Your task to perform on an android device: turn off airplane mode Image 0: 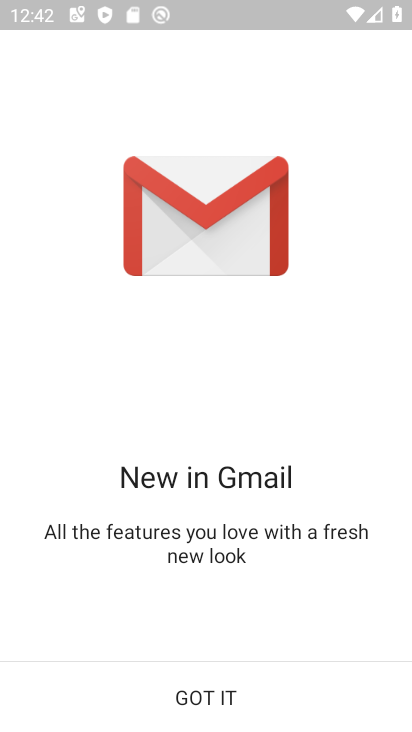
Step 0: press home button
Your task to perform on an android device: turn off airplane mode Image 1: 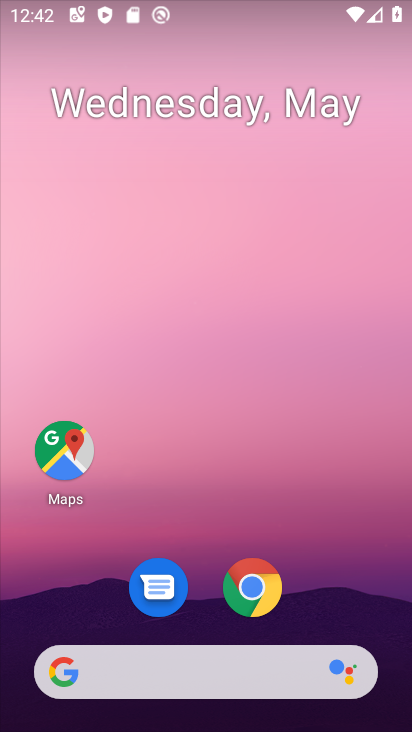
Step 1: drag from (384, 615) to (394, 114)
Your task to perform on an android device: turn off airplane mode Image 2: 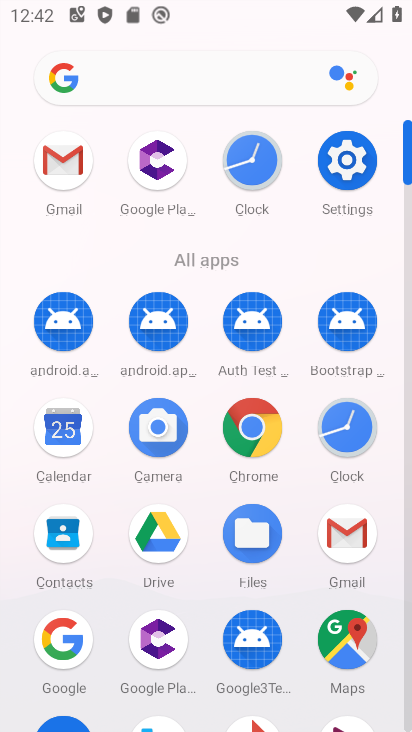
Step 2: click (349, 174)
Your task to perform on an android device: turn off airplane mode Image 3: 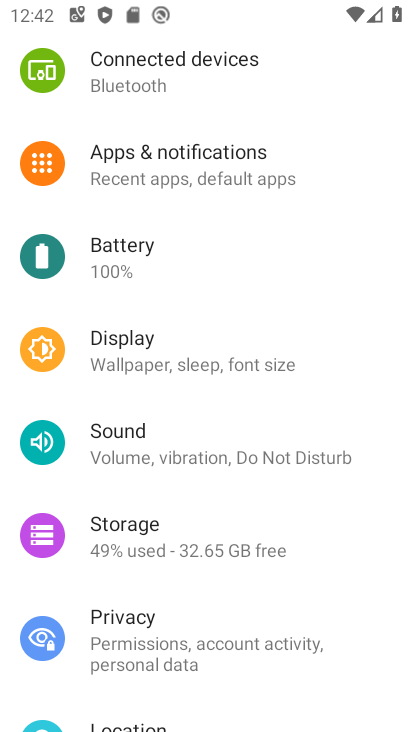
Step 3: drag from (370, 326) to (361, 424)
Your task to perform on an android device: turn off airplane mode Image 4: 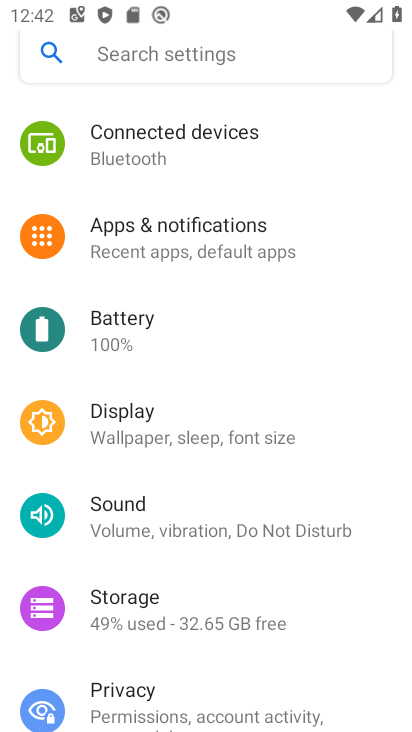
Step 4: drag from (363, 312) to (355, 405)
Your task to perform on an android device: turn off airplane mode Image 5: 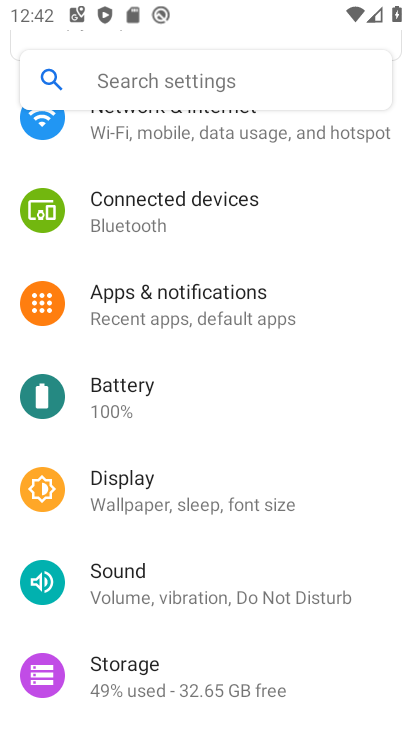
Step 5: drag from (362, 267) to (358, 397)
Your task to perform on an android device: turn off airplane mode Image 6: 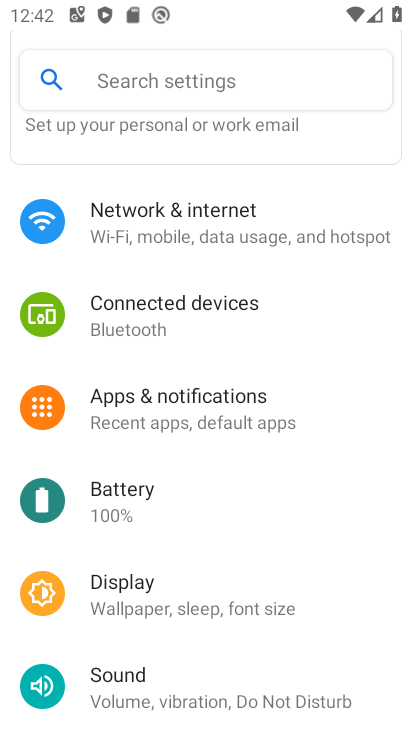
Step 6: drag from (352, 307) to (349, 436)
Your task to perform on an android device: turn off airplane mode Image 7: 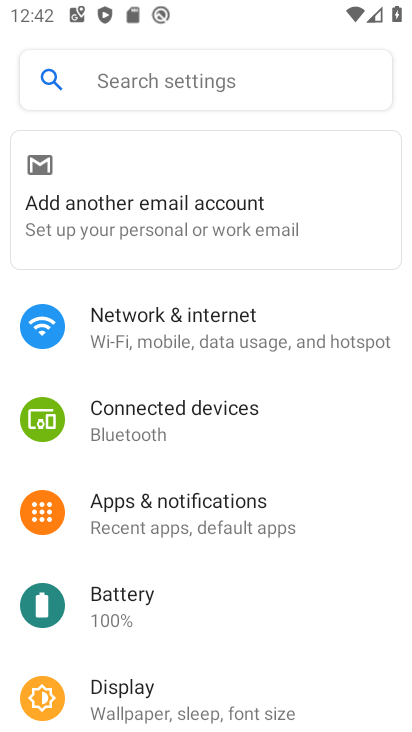
Step 7: drag from (364, 234) to (365, 392)
Your task to perform on an android device: turn off airplane mode Image 8: 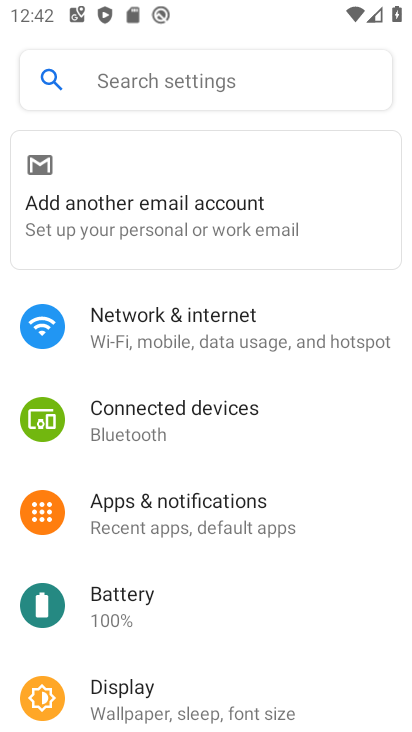
Step 8: drag from (364, 526) to (355, 384)
Your task to perform on an android device: turn off airplane mode Image 9: 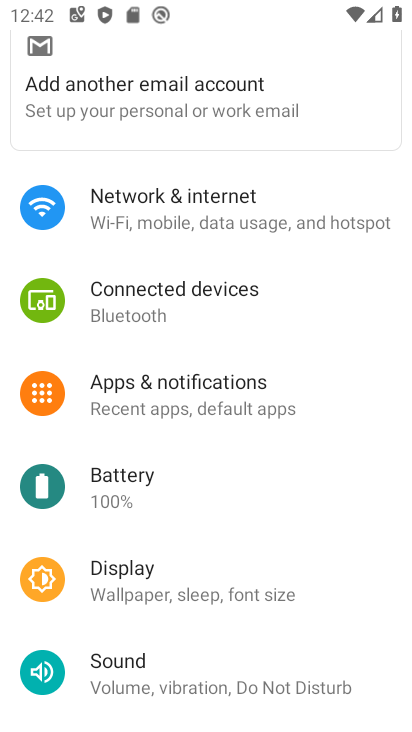
Step 9: drag from (343, 532) to (343, 433)
Your task to perform on an android device: turn off airplane mode Image 10: 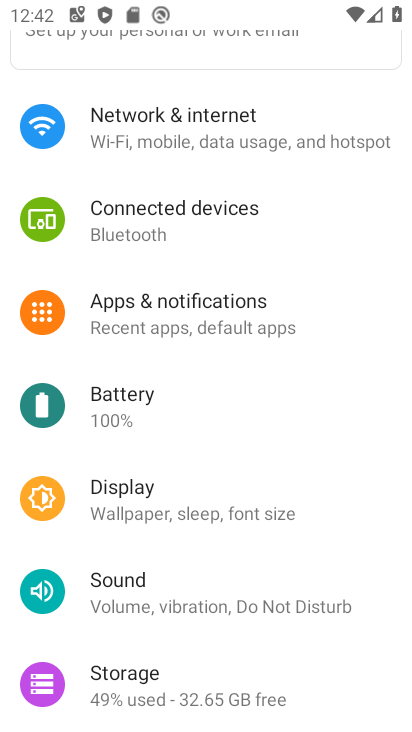
Step 10: drag from (362, 585) to (376, 448)
Your task to perform on an android device: turn off airplane mode Image 11: 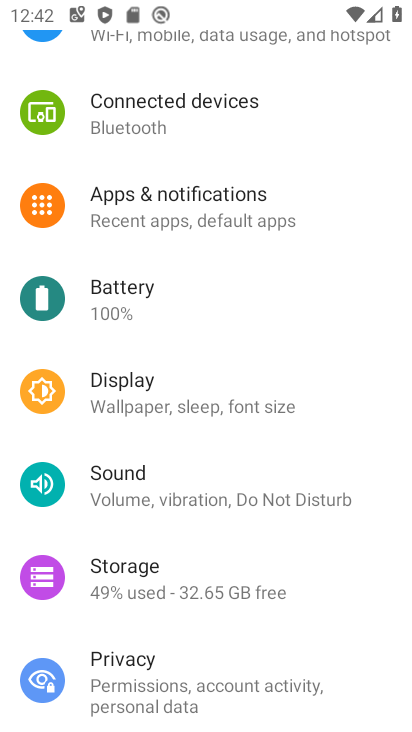
Step 11: drag from (360, 586) to (371, 462)
Your task to perform on an android device: turn off airplane mode Image 12: 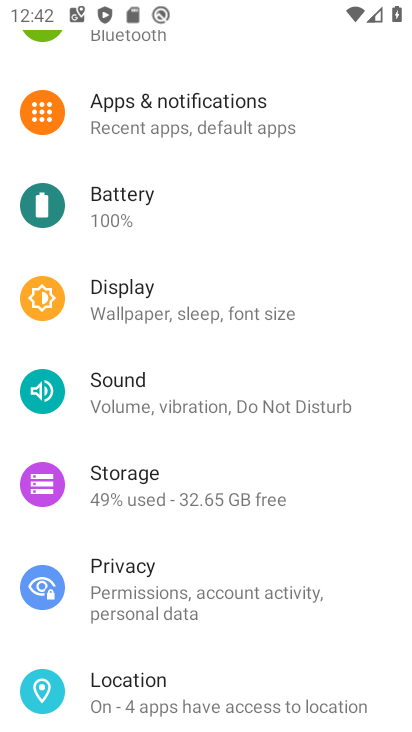
Step 12: drag from (360, 562) to (372, 427)
Your task to perform on an android device: turn off airplane mode Image 13: 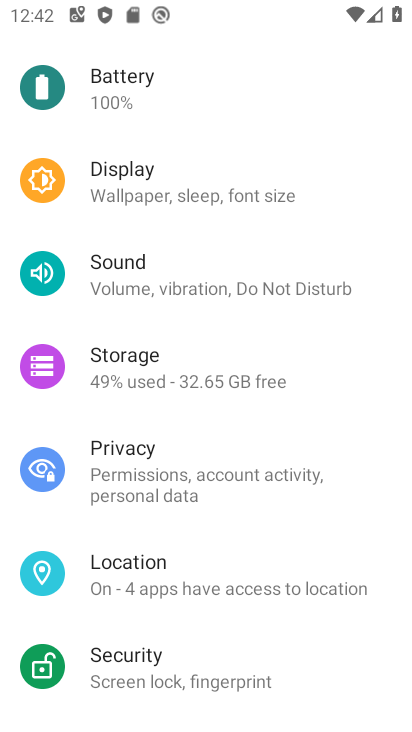
Step 13: drag from (363, 257) to (360, 430)
Your task to perform on an android device: turn off airplane mode Image 14: 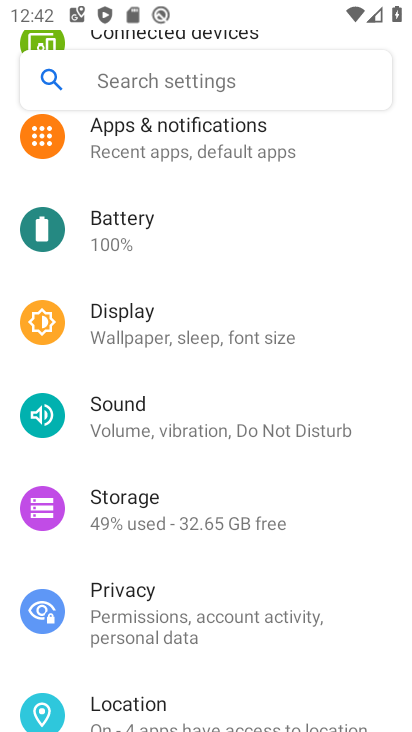
Step 14: drag from (370, 301) to (356, 430)
Your task to perform on an android device: turn off airplane mode Image 15: 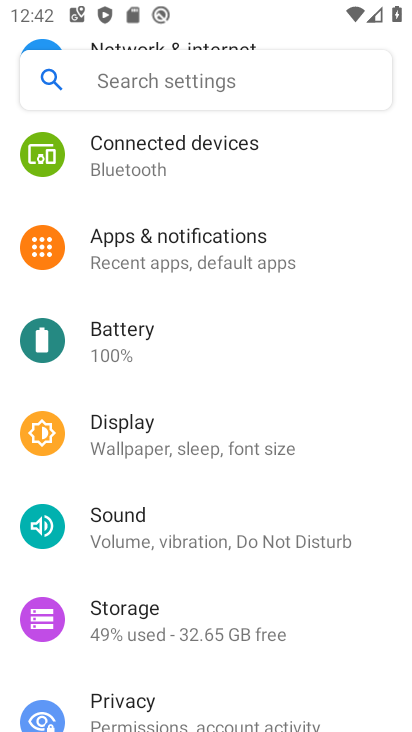
Step 15: drag from (352, 278) to (338, 403)
Your task to perform on an android device: turn off airplane mode Image 16: 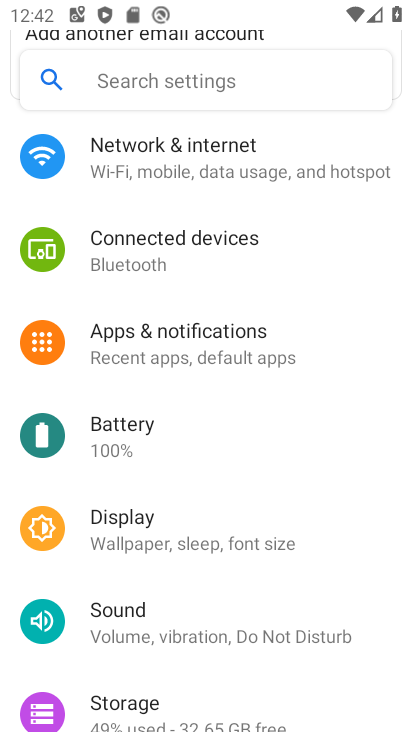
Step 16: drag from (358, 295) to (349, 419)
Your task to perform on an android device: turn off airplane mode Image 17: 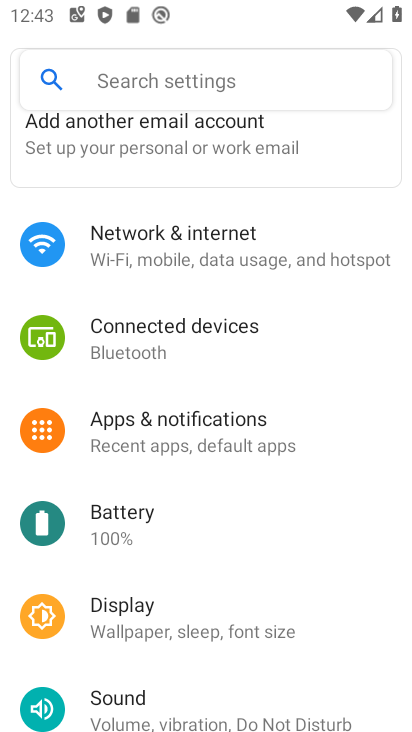
Step 17: click (332, 257)
Your task to perform on an android device: turn off airplane mode Image 18: 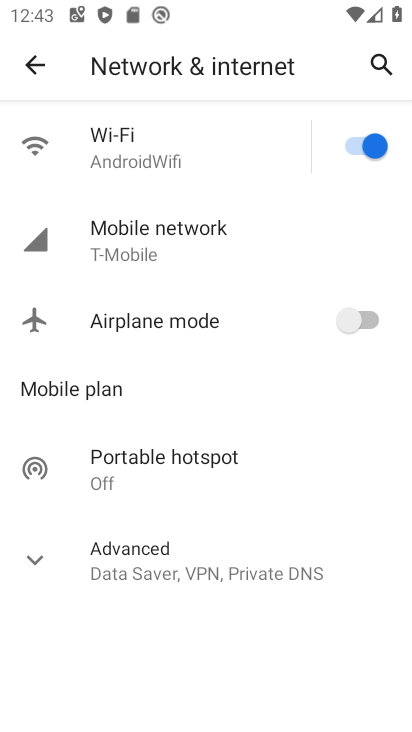
Step 18: task complete